Your task to perform on an android device: Open location settings Image 0: 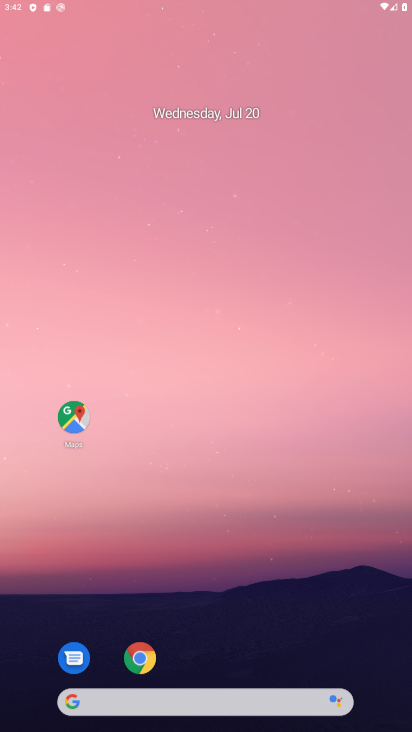
Step 0: drag from (191, 307) to (169, 29)
Your task to perform on an android device: Open location settings Image 1: 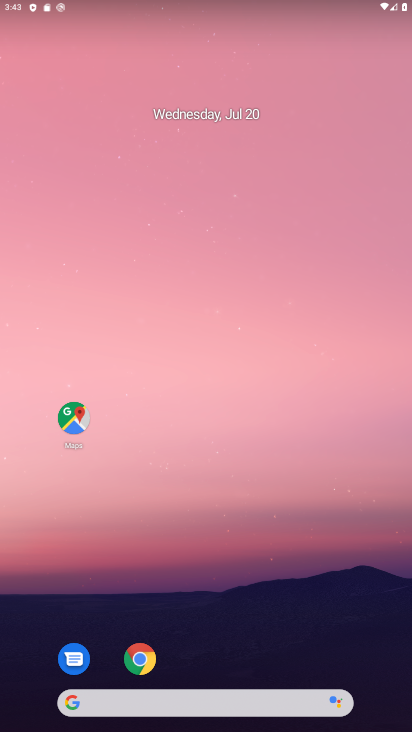
Step 1: drag from (262, 441) to (235, 70)
Your task to perform on an android device: Open location settings Image 2: 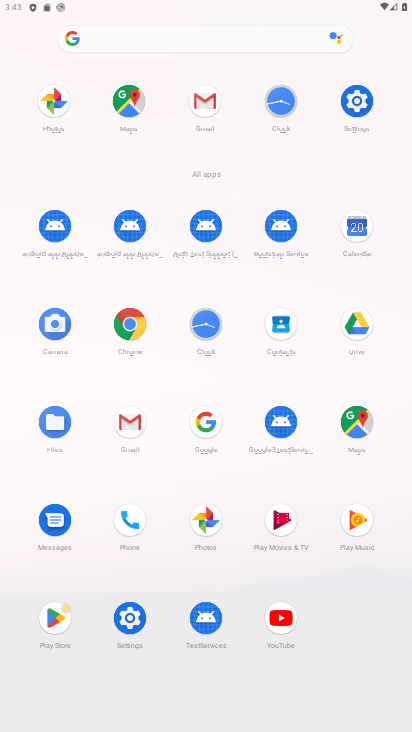
Step 2: drag from (305, 569) to (256, 110)
Your task to perform on an android device: Open location settings Image 3: 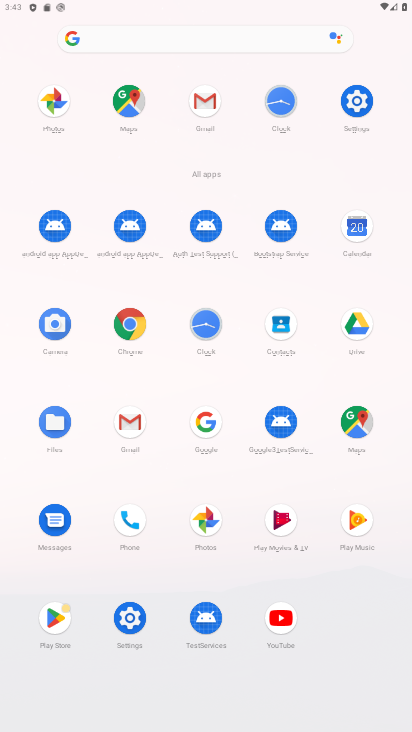
Step 3: click (355, 108)
Your task to perform on an android device: Open location settings Image 4: 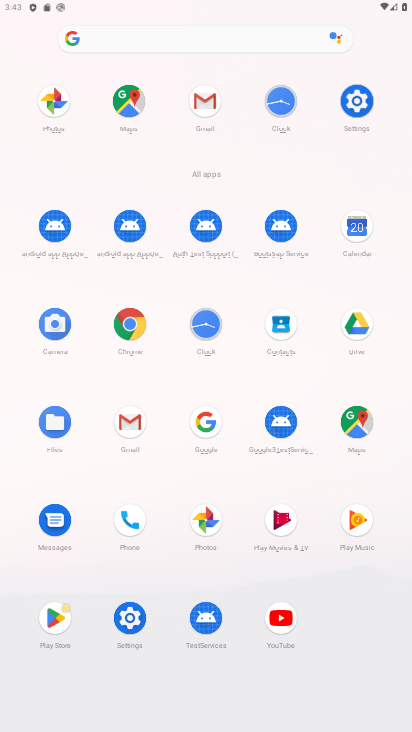
Step 4: click (358, 102)
Your task to perform on an android device: Open location settings Image 5: 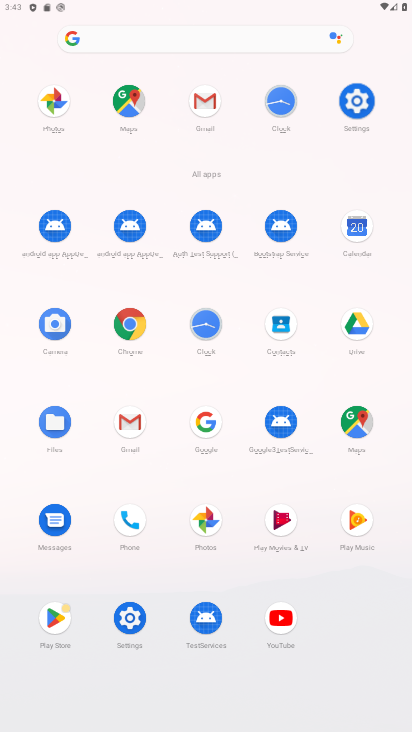
Step 5: click (358, 101)
Your task to perform on an android device: Open location settings Image 6: 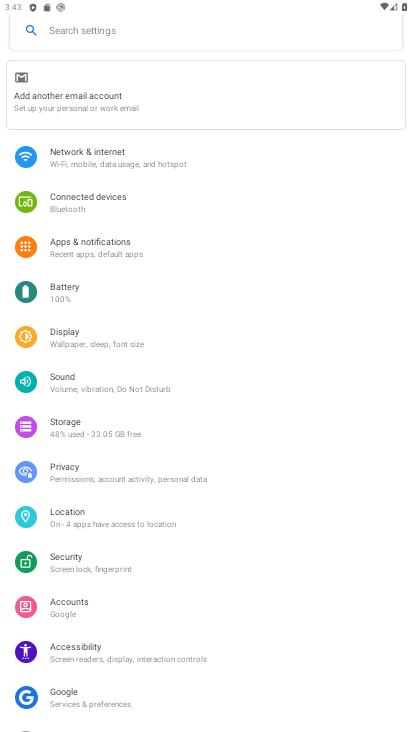
Step 6: click (80, 337)
Your task to perform on an android device: Open location settings Image 7: 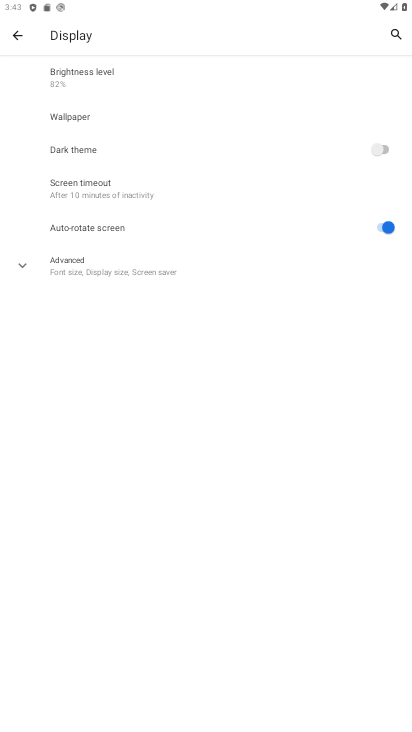
Step 7: click (86, 265)
Your task to perform on an android device: Open location settings Image 8: 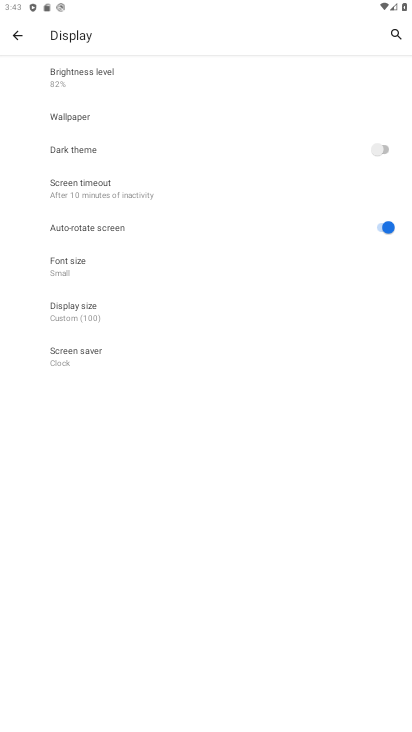
Step 8: click (63, 245)
Your task to perform on an android device: Open location settings Image 9: 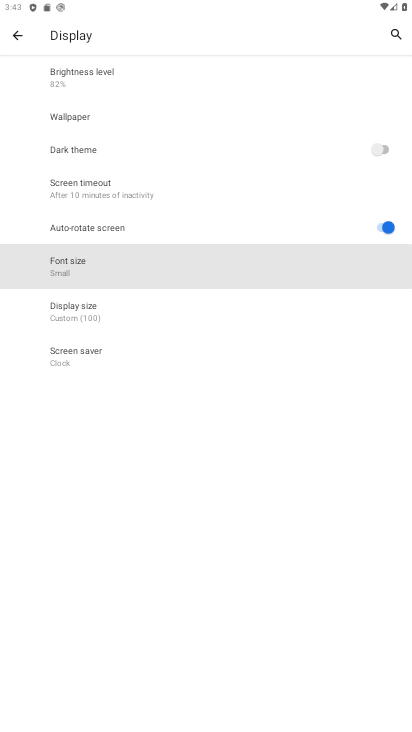
Step 9: click (64, 257)
Your task to perform on an android device: Open location settings Image 10: 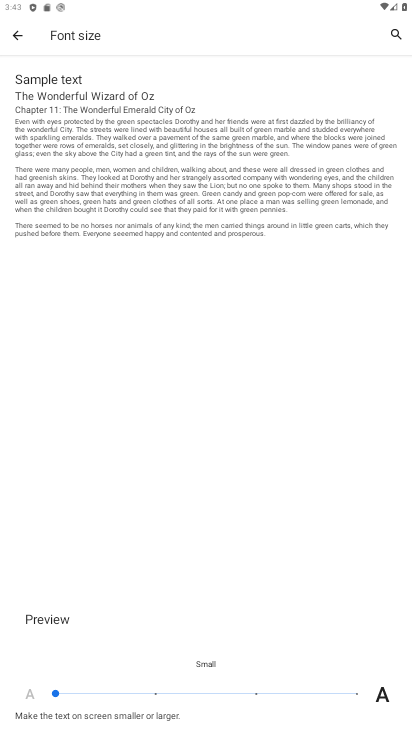
Step 10: click (358, 690)
Your task to perform on an android device: Open location settings Image 11: 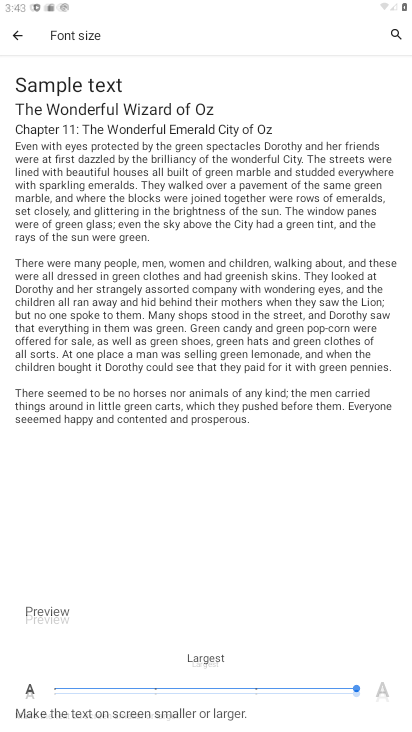
Step 11: click (356, 692)
Your task to perform on an android device: Open location settings Image 12: 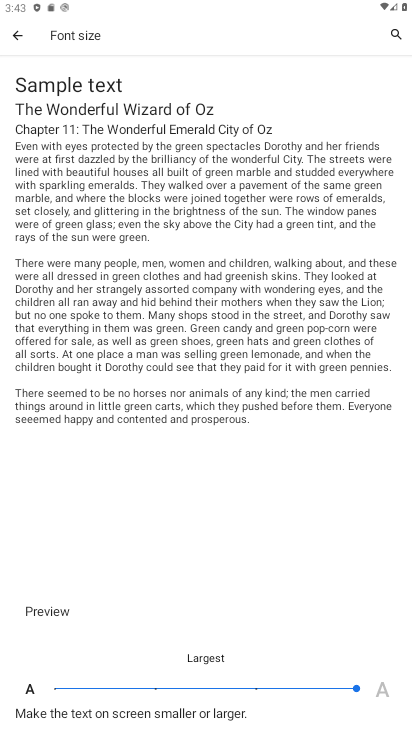
Step 12: press back button
Your task to perform on an android device: Open location settings Image 13: 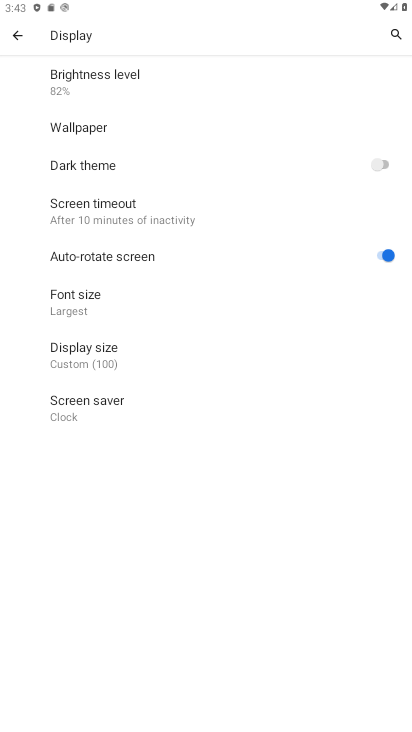
Step 13: click (25, 40)
Your task to perform on an android device: Open location settings Image 14: 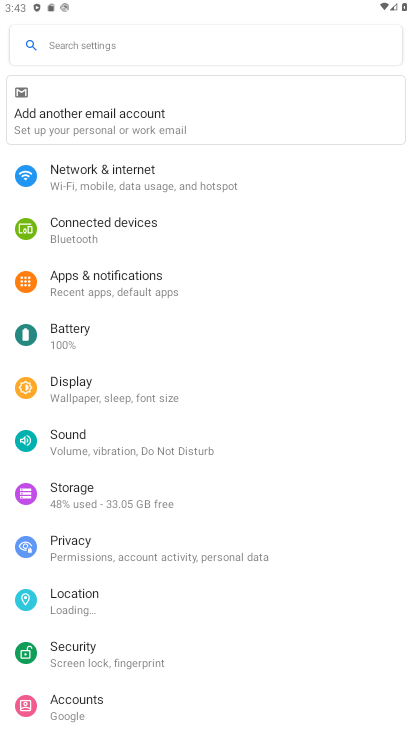
Step 14: click (84, 606)
Your task to perform on an android device: Open location settings Image 15: 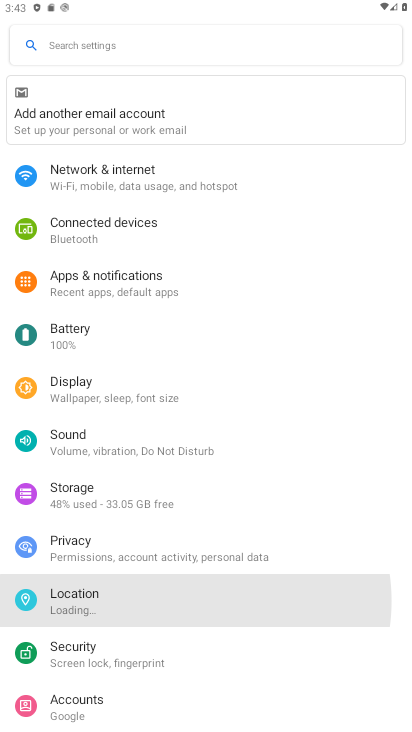
Step 15: click (80, 607)
Your task to perform on an android device: Open location settings Image 16: 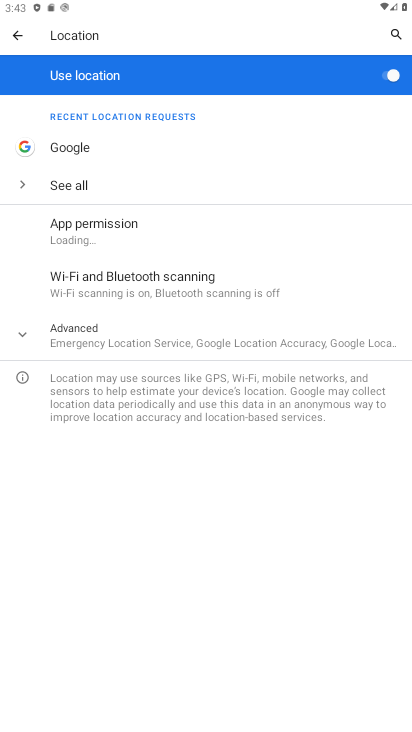
Step 16: click (59, 347)
Your task to perform on an android device: Open location settings Image 17: 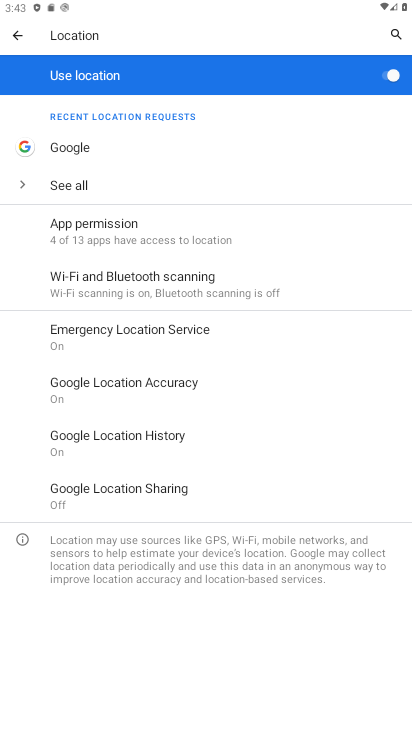
Step 17: click (132, 387)
Your task to perform on an android device: Open location settings Image 18: 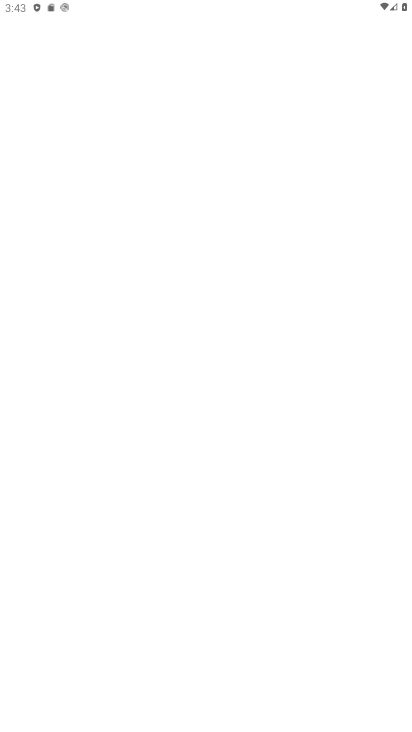
Step 18: task complete